Your task to perform on an android device: When is my next meeting? Image 0: 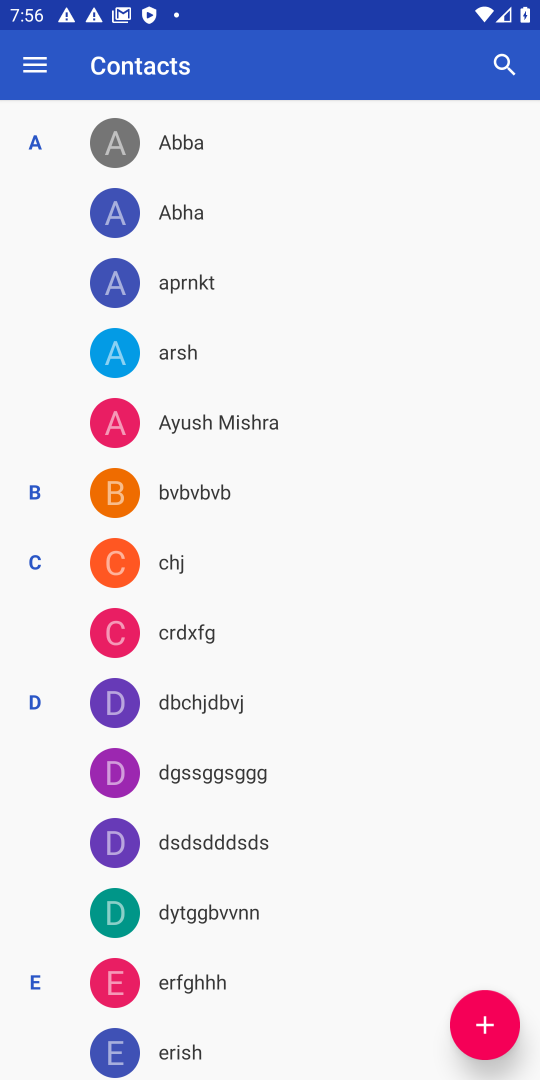
Step 0: press home button
Your task to perform on an android device: When is my next meeting? Image 1: 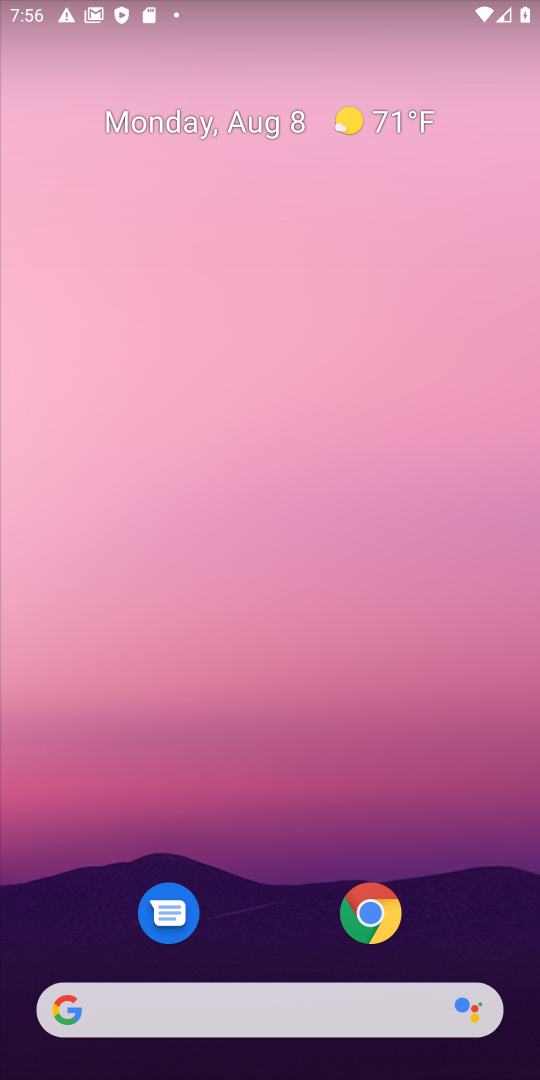
Step 1: drag from (254, 1009) to (329, 421)
Your task to perform on an android device: When is my next meeting? Image 2: 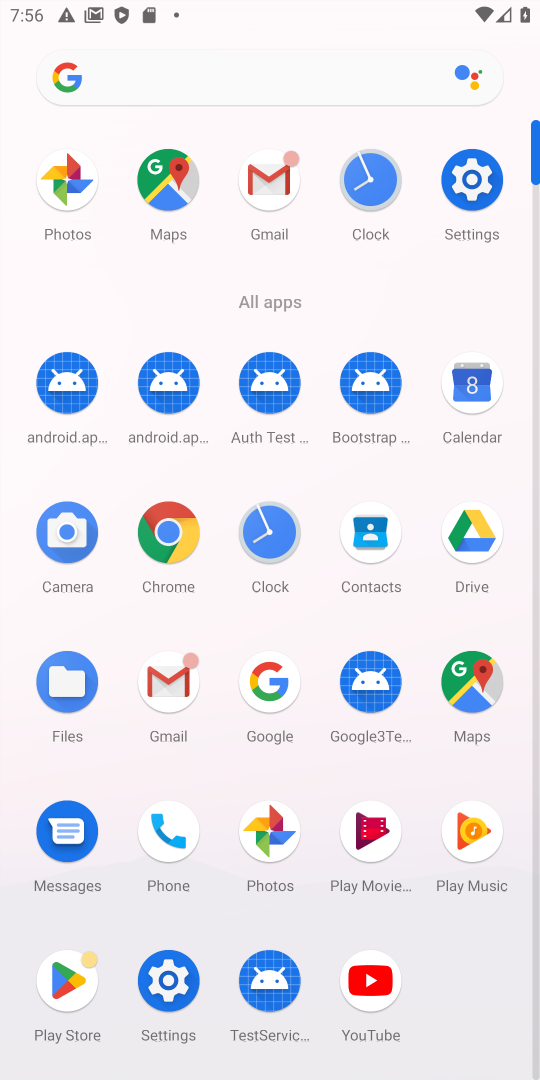
Step 2: click (468, 386)
Your task to perform on an android device: When is my next meeting? Image 3: 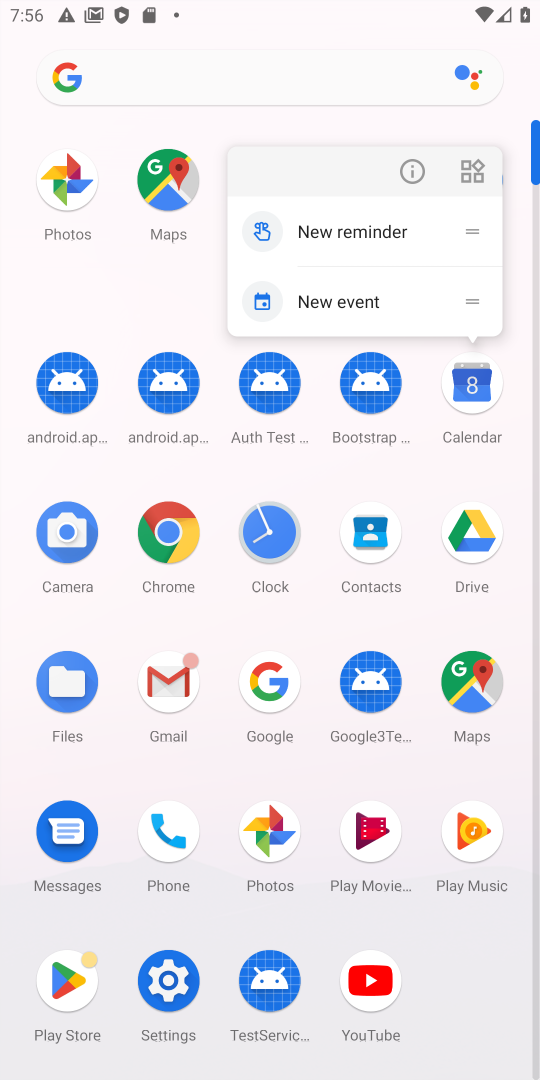
Step 3: click (468, 386)
Your task to perform on an android device: When is my next meeting? Image 4: 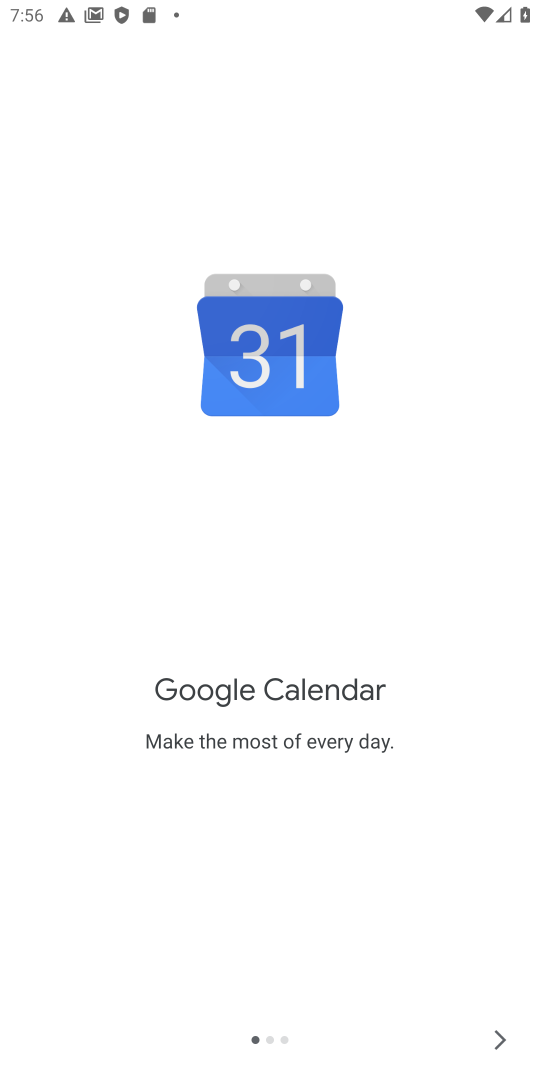
Step 4: click (502, 1040)
Your task to perform on an android device: When is my next meeting? Image 5: 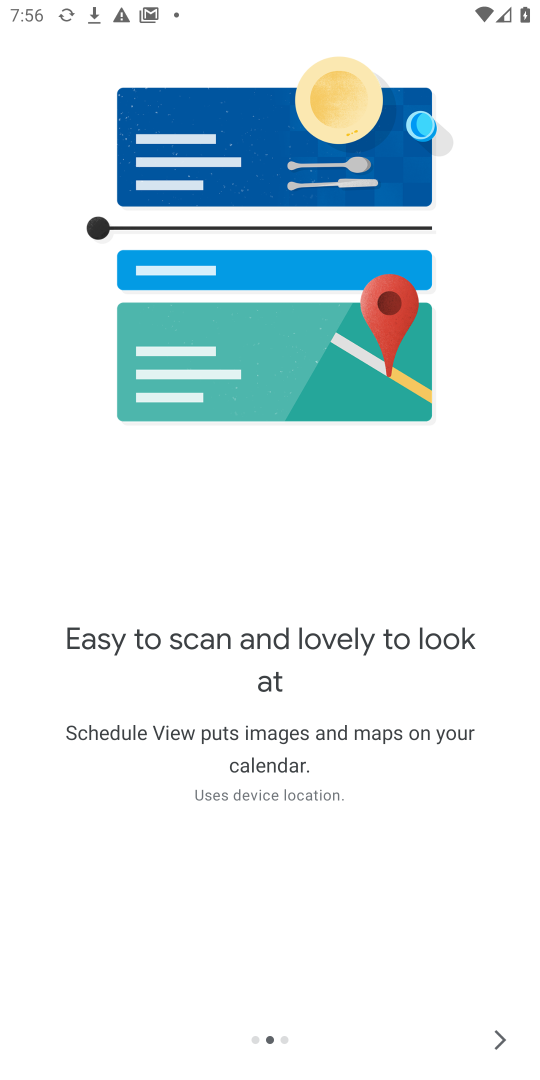
Step 5: click (502, 1040)
Your task to perform on an android device: When is my next meeting? Image 6: 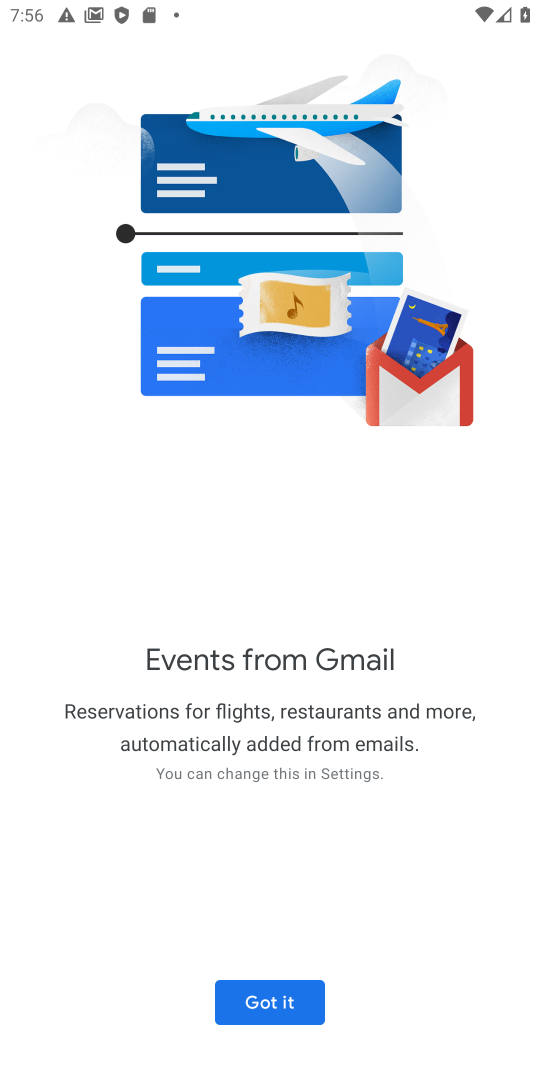
Step 6: click (264, 1002)
Your task to perform on an android device: When is my next meeting? Image 7: 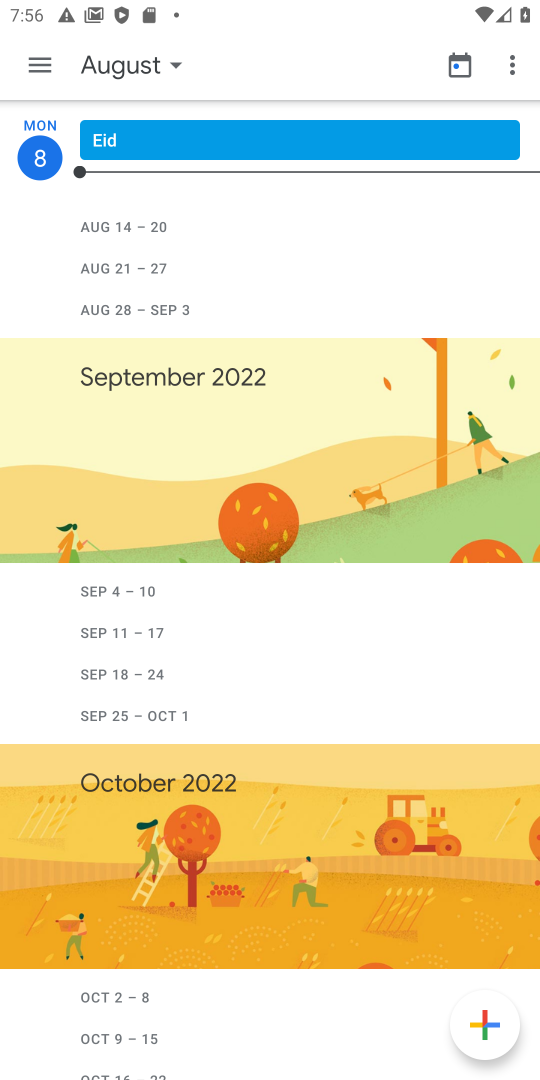
Step 7: click (172, 66)
Your task to perform on an android device: When is my next meeting? Image 8: 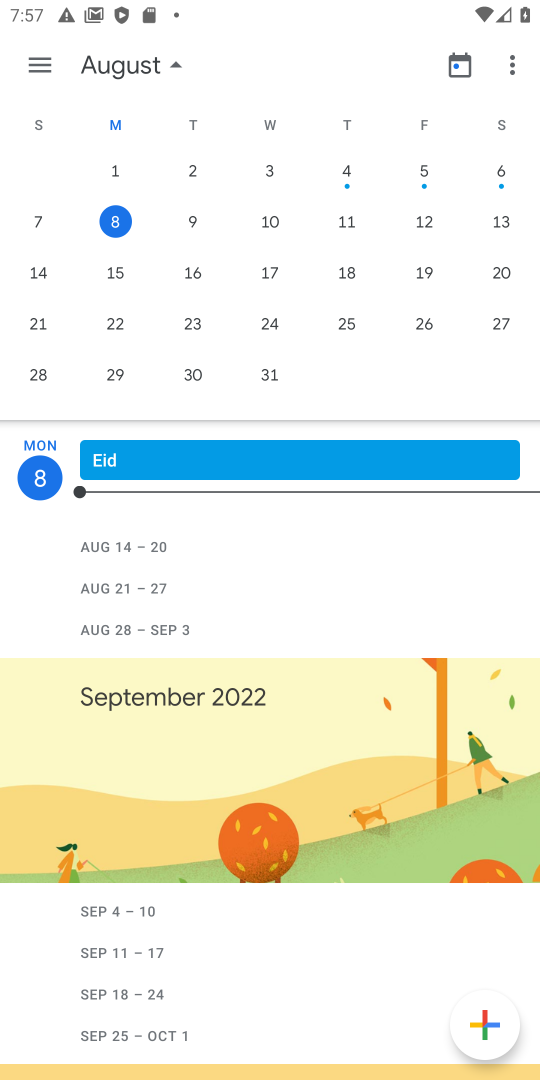
Step 8: click (201, 225)
Your task to perform on an android device: When is my next meeting? Image 9: 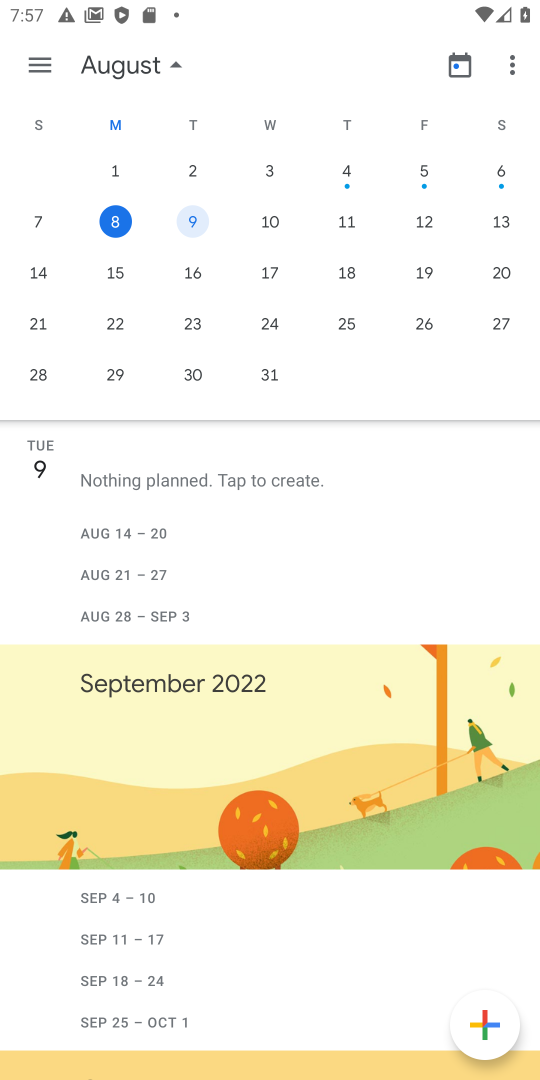
Step 9: click (45, 64)
Your task to perform on an android device: When is my next meeting? Image 10: 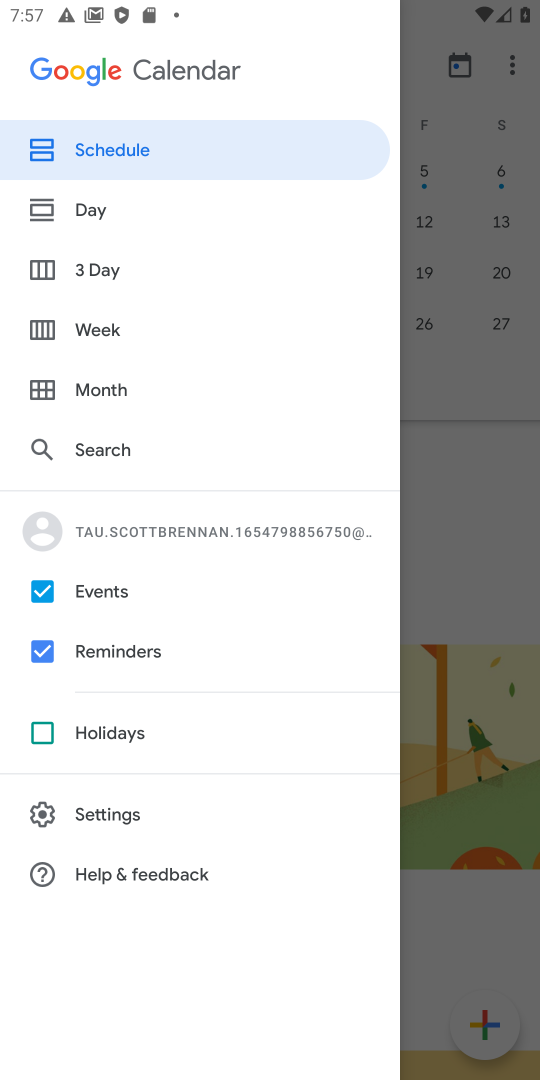
Step 10: click (143, 157)
Your task to perform on an android device: When is my next meeting? Image 11: 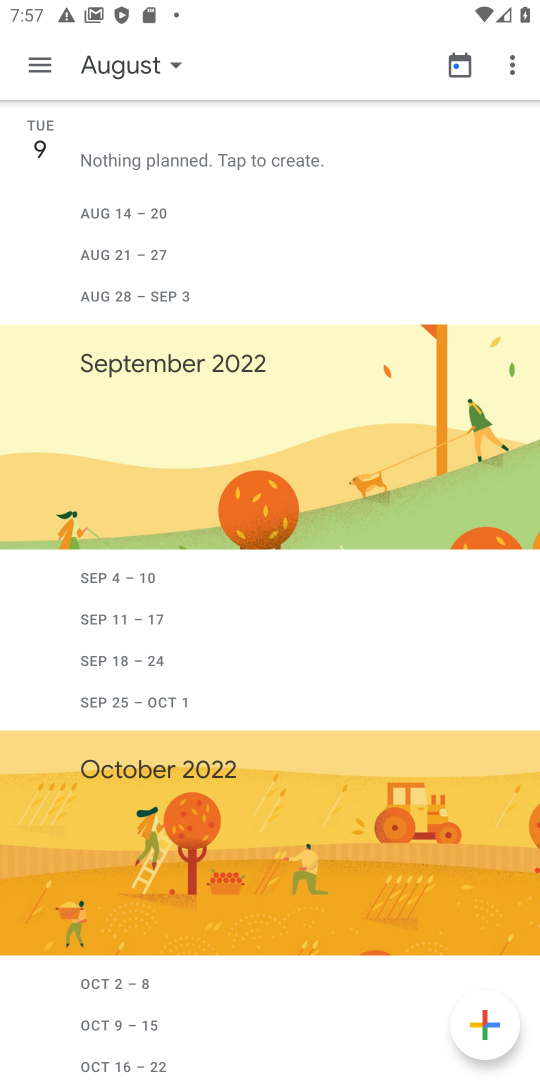
Step 11: task complete